Your task to perform on an android device: open the mobile data screen to see how much data has been used Image 0: 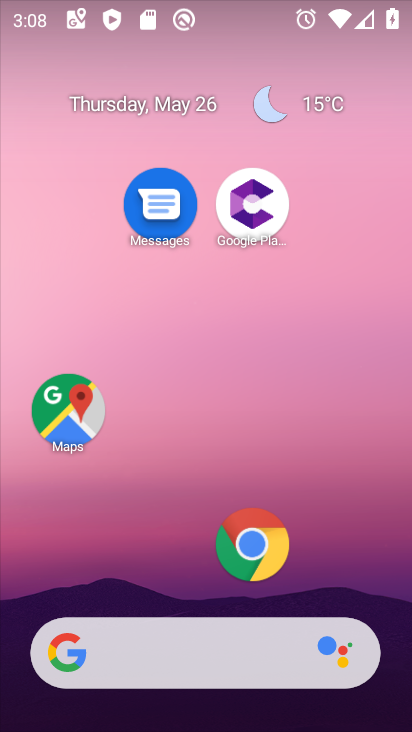
Step 0: drag from (218, 14) to (239, 458)
Your task to perform on an android device: open the mobile data screen to see how much data has been used Image 1: 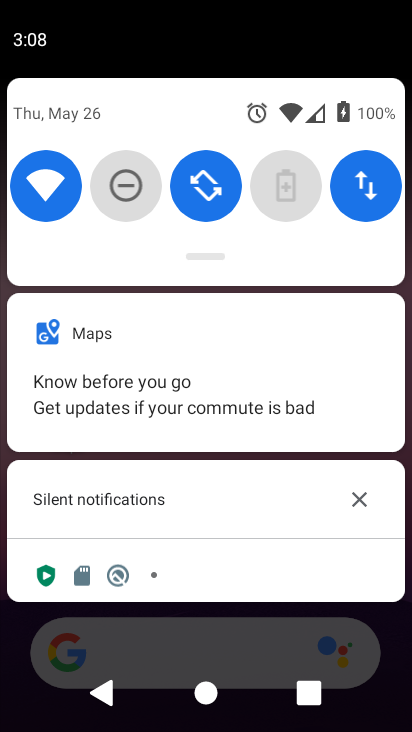
Step 1: click (366, 188)
Your task to perform on an android device: open the mobile data screen to see how much data has been used Image 2: 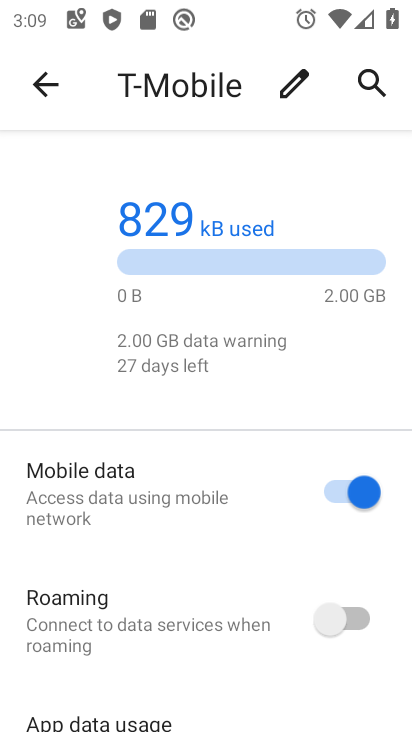
Step 2: task complete